Your task to perform on an android device: toggle pop-ups in chrome Image 0: 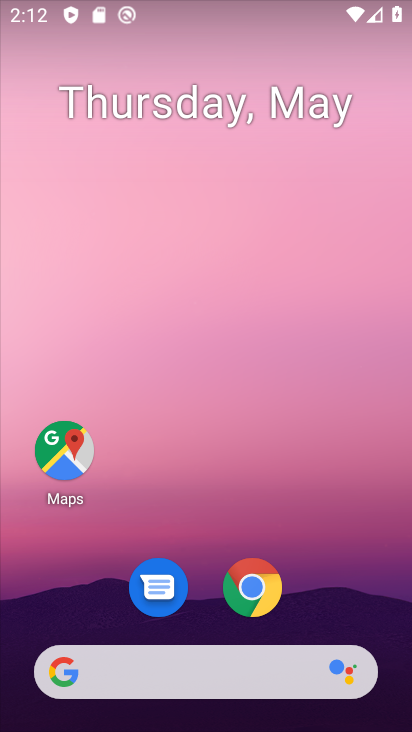
Step 0: click (258, 582)
Your task to perform on an android device: toggle pop-ups in chrome Image 1: 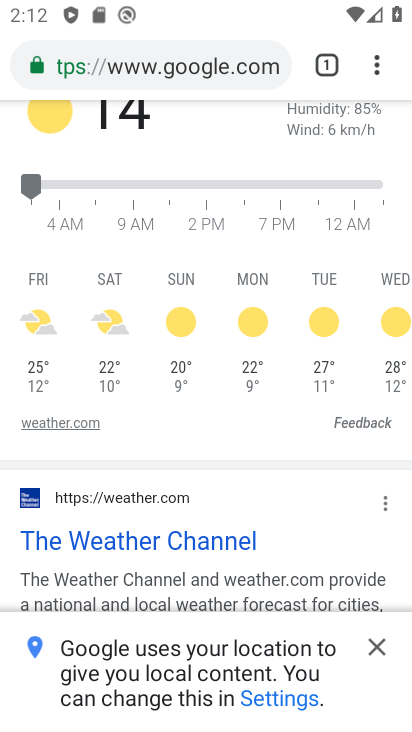
Step 1: drag from (384, 55) to (228, 644)
Your task to perform on an android device: toggle pop-ups in chrome Image 2: 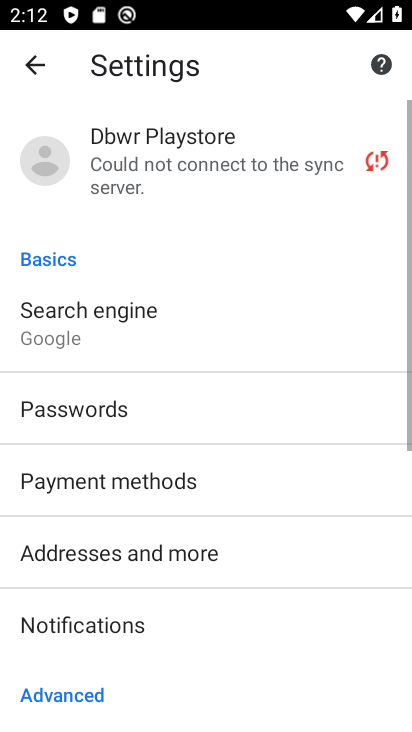
Step 2: drag from (218, 537) to (278, 130)
Your task to perform on an android device: toggle pop-ups in chrome Image 3: 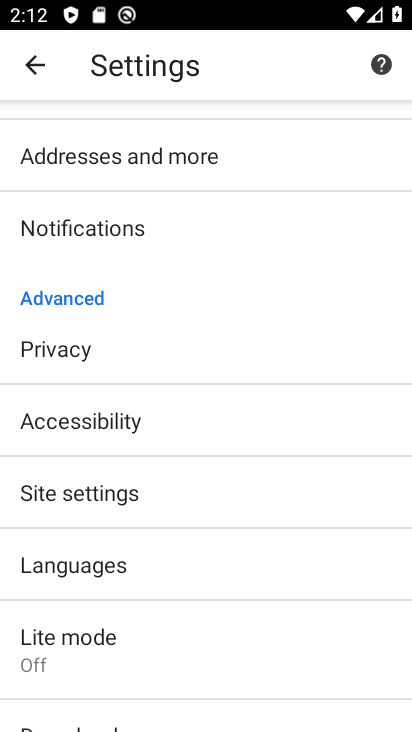
Step 3: click (114, 495)
Your task to perform on an android device: toggle pop-ups in chrome Image 4: 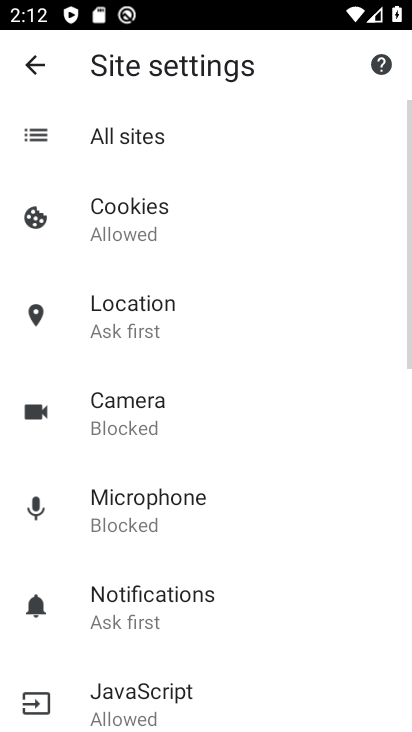
Step 4: drag from (234, 598) to (283, 198)
Your task to perform on an android device: toggle pop-ups in chrome Image 5: 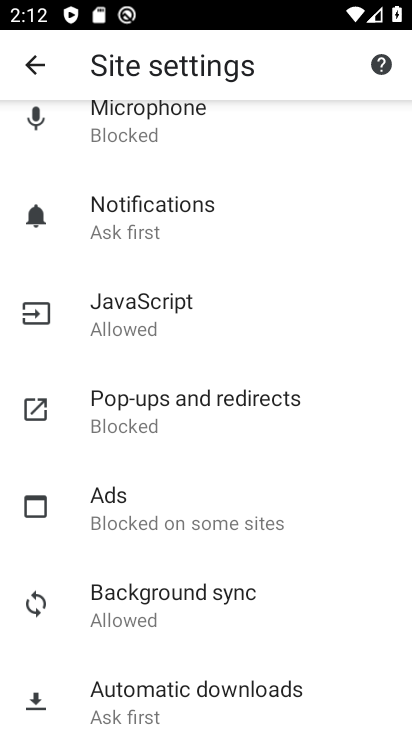
Step 5: click (171, 417)
Your task to perform on an android device: toggle pop-ups in chrome Image 6: 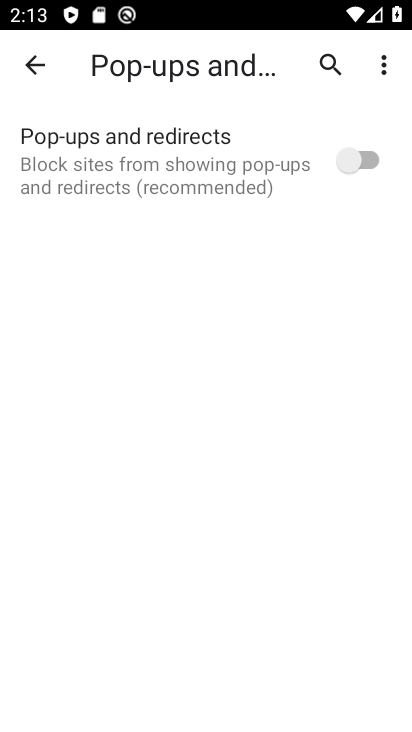
Step 6: click (338, 158)
Your task to perform on an android device: toggle pop-ups in chrome Image 7: 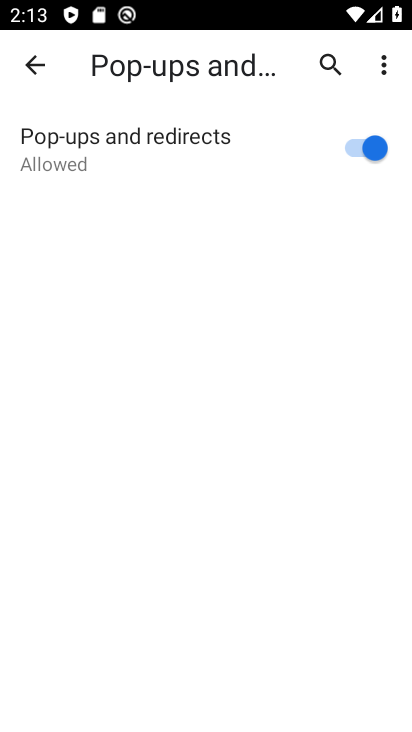
Step 7: task complete